Your task to perform on an android device: choose inbox layout in the gmail app Image 0: 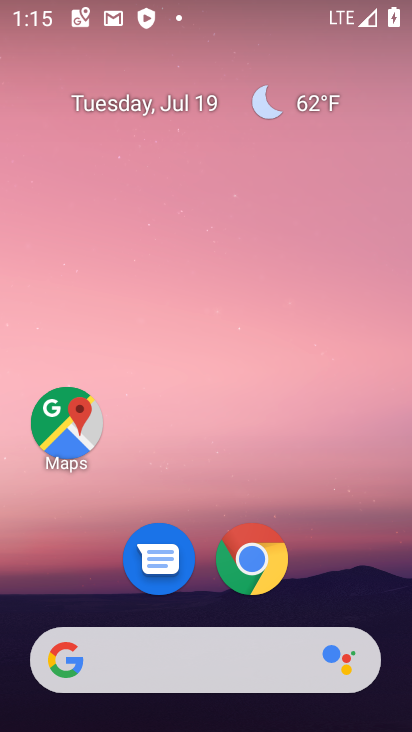
Step 0: drag from (245, 525) to (304, 177)
Your task to perform on an android device: choose inbox layout in the gmail app Image 1: 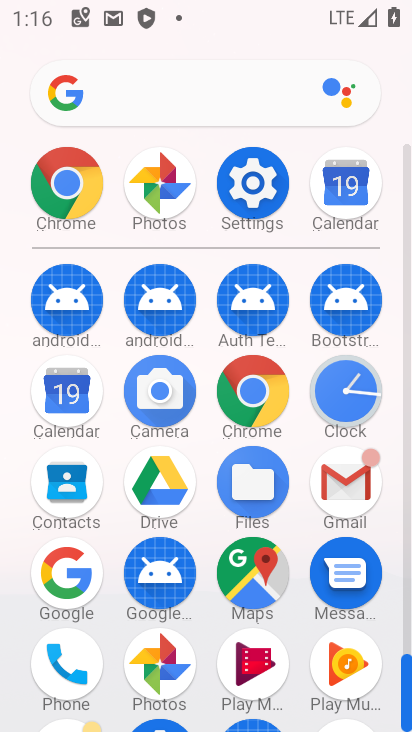
Step 1: click (349, 489)
Your task to perform on an android device: choose inbox layout in the gmail app Image 2: 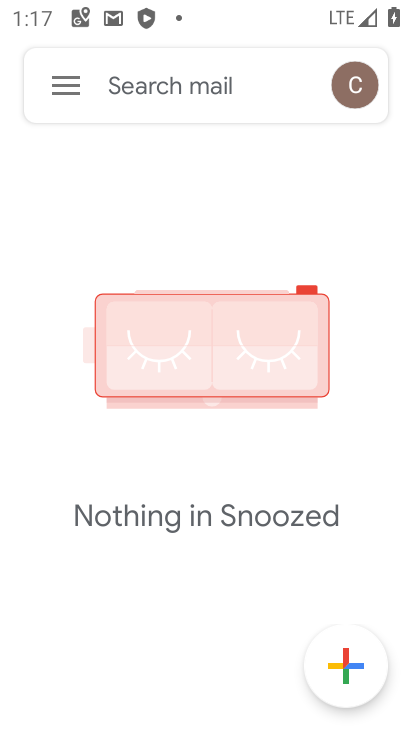
Step 2: click (60, 94)
Your task to perform on an android device: choose inbox layout in the gmail app Image 3: 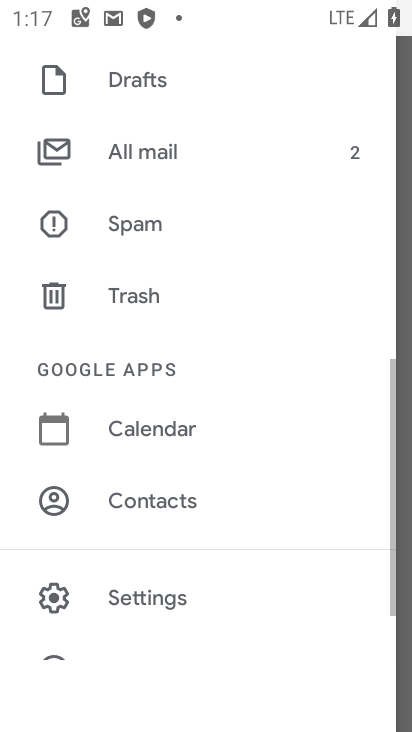
Step 3: click (149, 593)
Your task to perform on an android device: choose inbox layout in the gmail app Image 4: 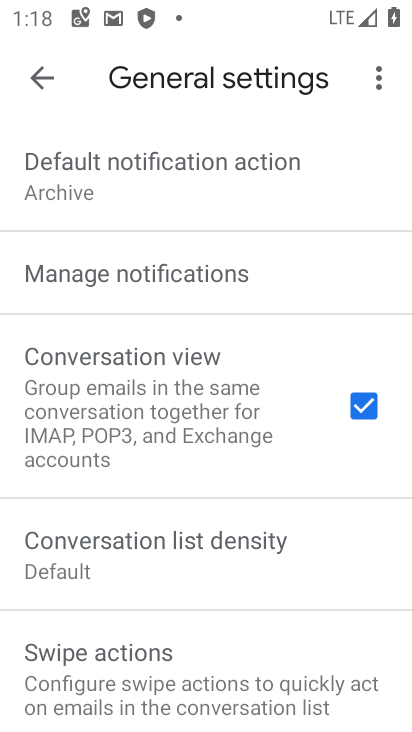
Step 4: task complete